Your task to perform on an android device: What is the news today? Image 0: 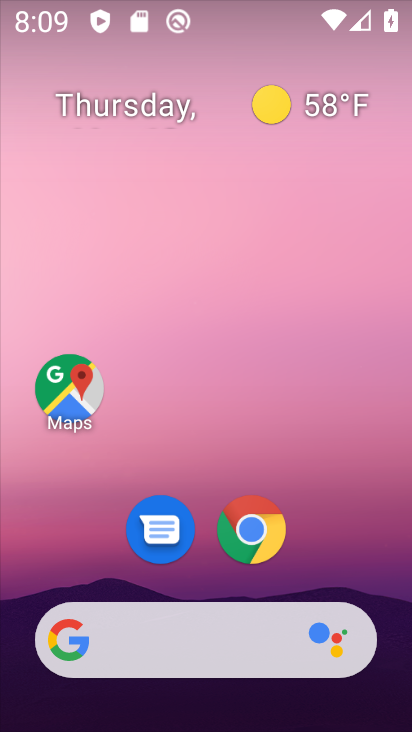
Step 0: drag from (210, 572) to (179, 139)
Your task to perform on an android device: What is the news today? Image 1: 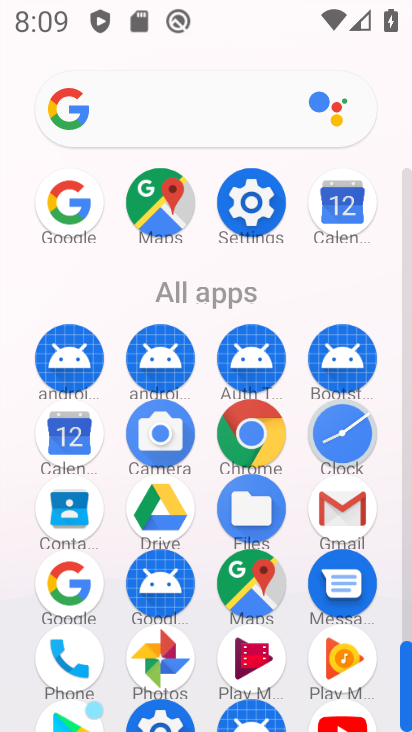
Step 1: click (66, 587)
Your task to perform on an android device: What is the news today? Image 2: 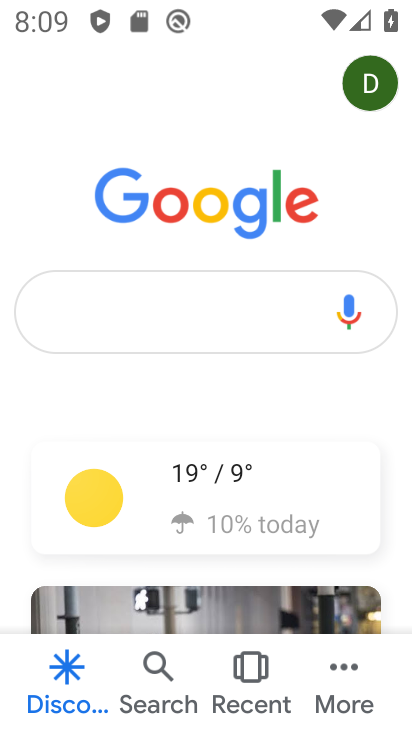
Step 2: click (162, 300)
Your task to perform on an android device: What is the news today? Image 3: 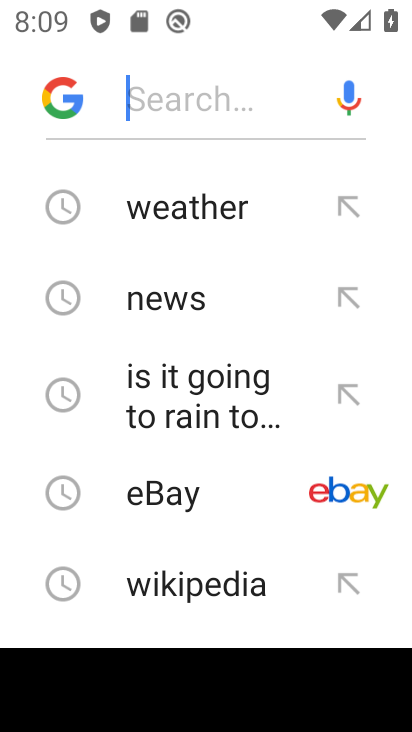
Step 3: type "news  today"
Your task to perform on an android device: What is the news today? Image 4: 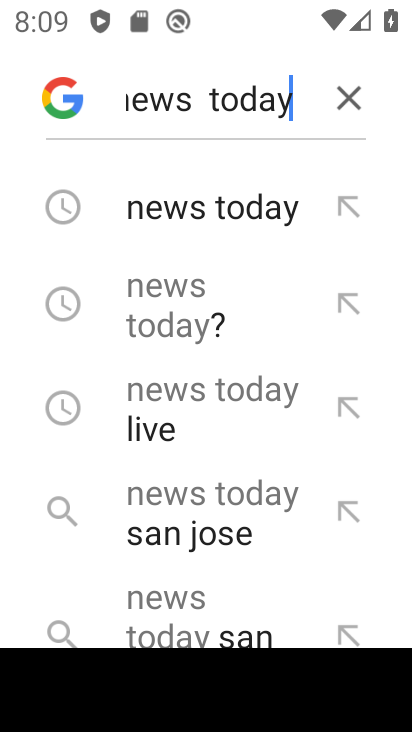
Step 4: click (190, 204)
Your task to perform on an android device: What is the news today? Image 5: 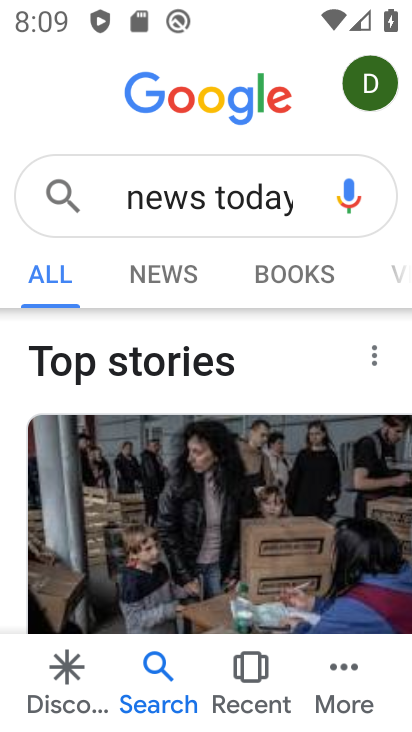
Step 5: task complete